Your task to perform on an android device: refresh tabs in the chrome app Image 0: 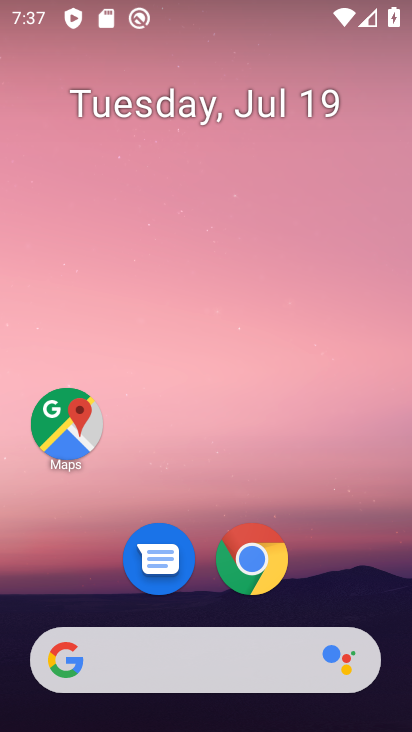
Step 0: click (250, 557)
Your task to perform on an android device: refresh tabs in the chrome app Image 1: 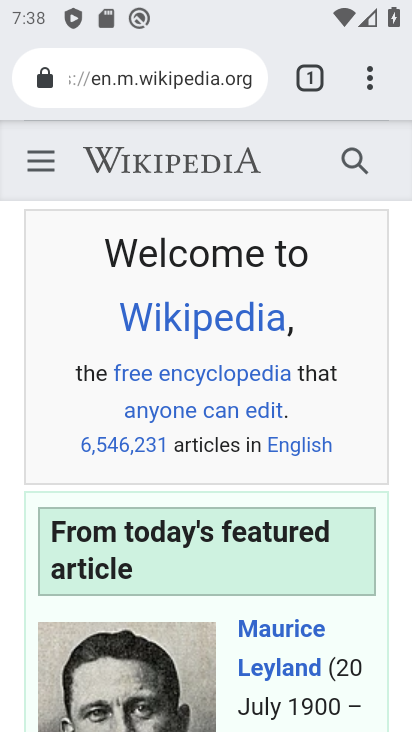
Step 1: click (362, 75)
Your task to perform on an android device: refresh tabs in the chrome app Image 2: 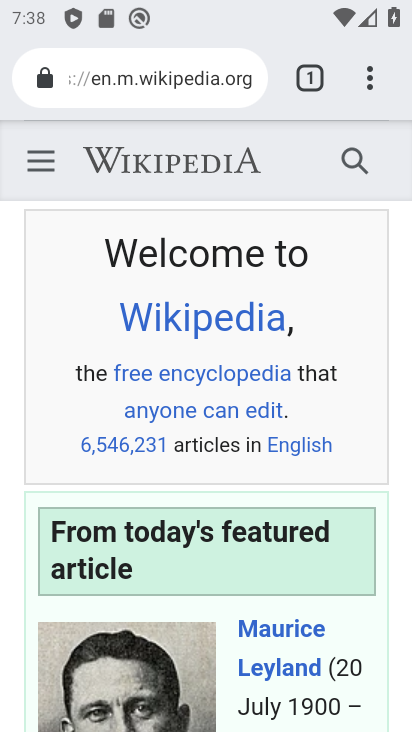
Step 2: click (375, 75)
Your task to perform on an android device: refresh tabs in the chrome app Image 3: 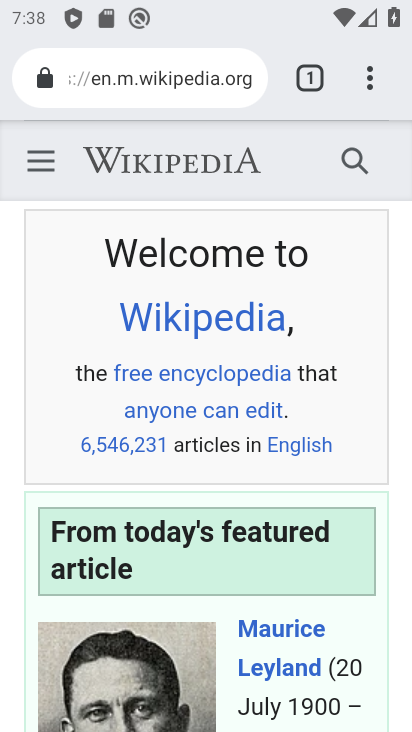
Step 3: task complete